Your task to perform on an android device: turn off notifications settings in the gmail app Image 0: 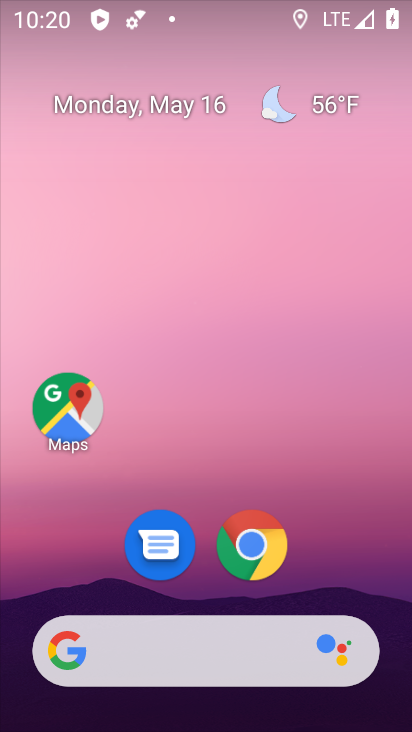
Step 0: drag from (219, 616) to (165, 29)
Your task to perform on an android device: turn off notifications settings in the gmail app Image 1: 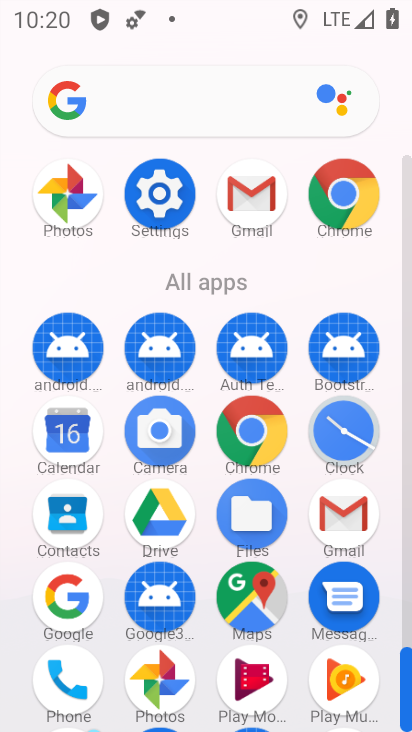
Step 1: click (354, 522)
Your task to perform on an android device: turn off notifications settings in the gmail app Image 2: 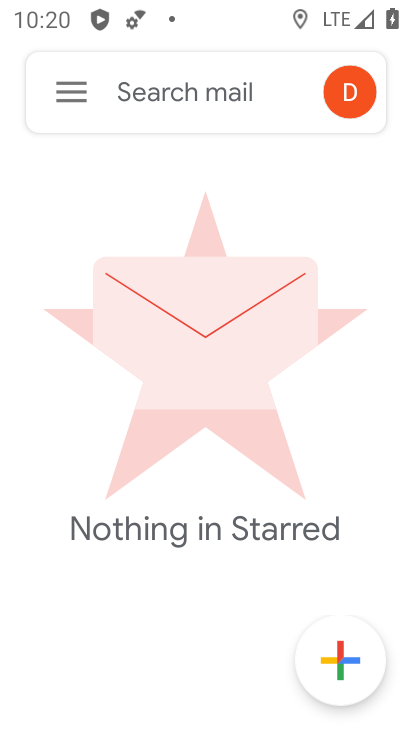
Step 2: click (66, 105)
Your task to perform on an android device: turn off notifications settings in the gmail app Image 3: 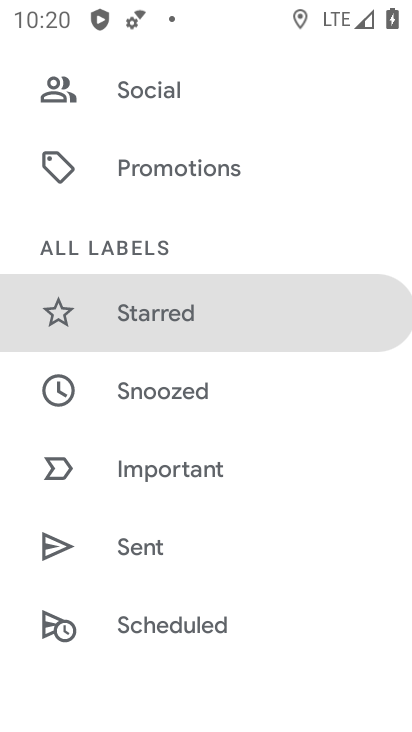
Step 3: drag from (160, 568) to (131, 111)
Your task to perform on an android device: turn off notifications settings in the gmail app Image 4: 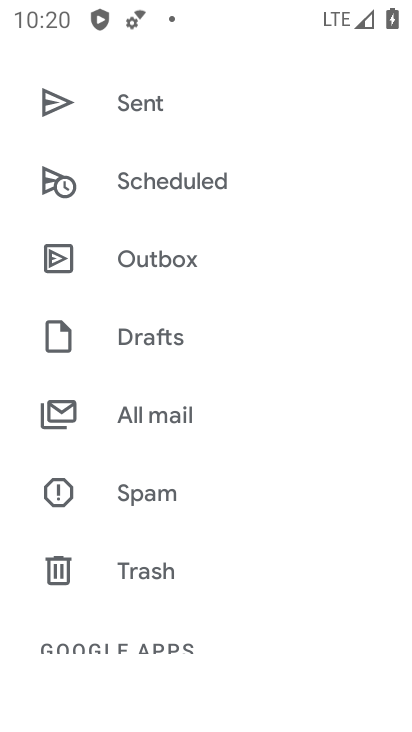
Step 4: drag from (178, 577) to (178, 63)
Your task to perform on an android device: turn off notifications settings in the gmail app Image 5: 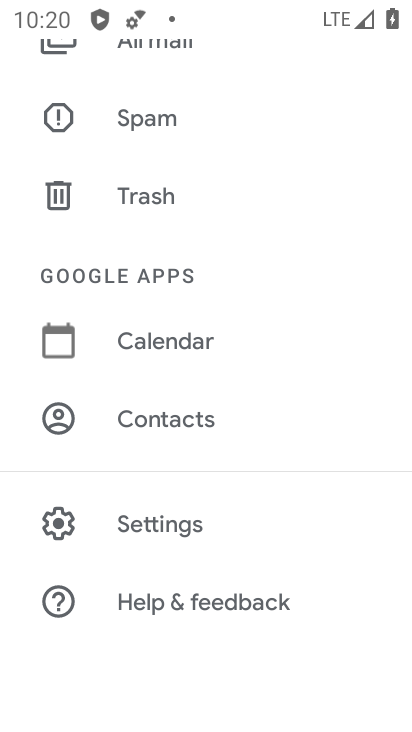
Step 5: click (190, 520)
Your task to perform on an android device: turn off notifications settings in the gmail app Image 6: 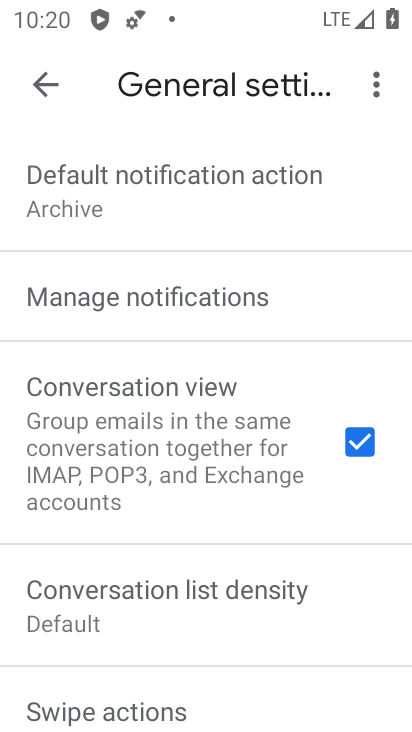
Step 6: click (130, 309)
Your task to perform on an android device: turn off notifications settings in the gmail app Image 7: 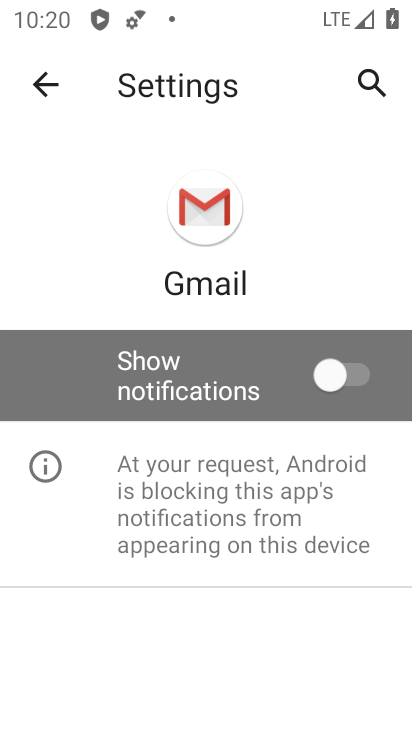
Step 7: task complete